Your task to perform on an android device: Open display settings Image 0: 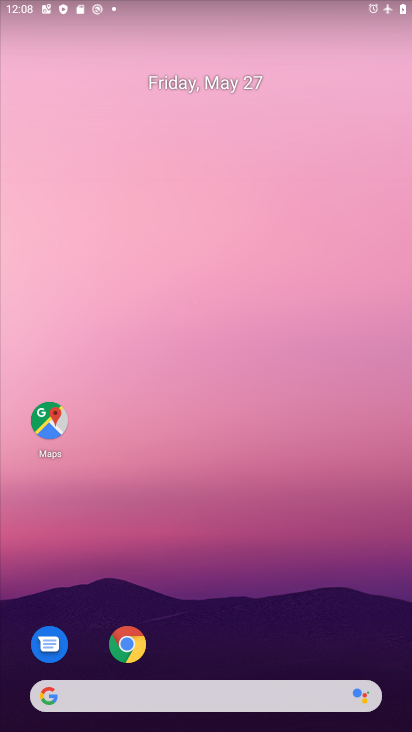
Step 0: drag from (216, 632) to (194, 178)
Your task to perform on an android device: Open display settings Image 1: 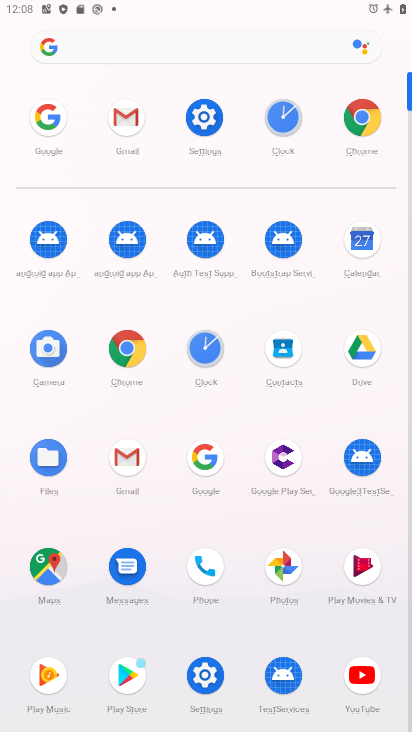
Step 1: click (209, 122)
Your task to perform on an android device: Open display settings Image 2: 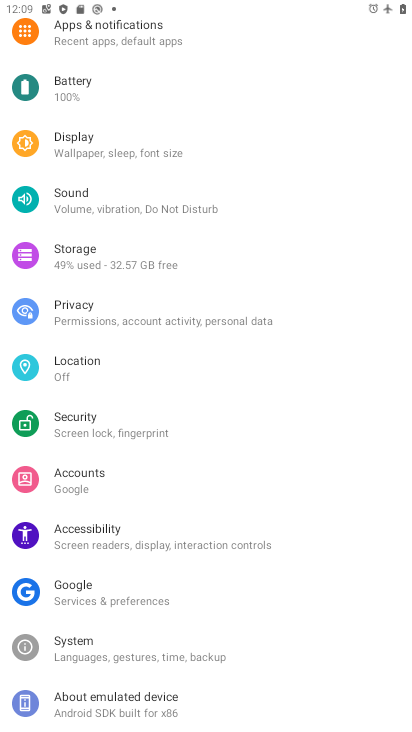
Step 2: click (87, 155)
Your task to perform on an android device: Open display settings Image 3: 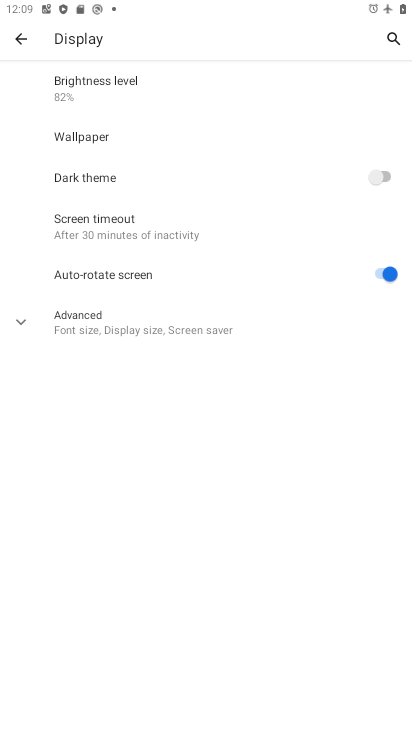
Step 3: task complete